Your task to perform on an android device: Search for sushi restaurants on Maps Image 0: 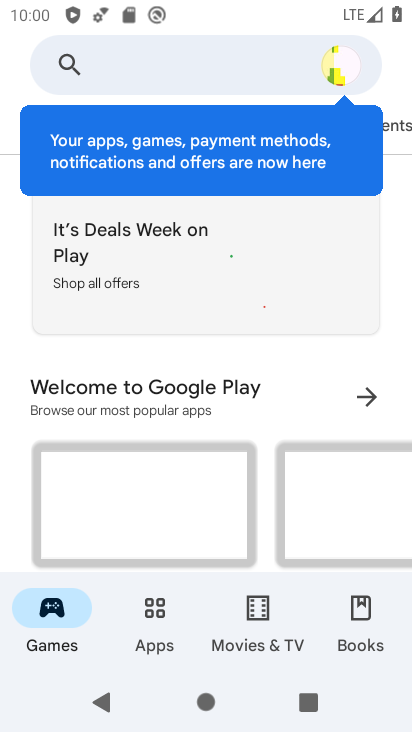
Step 0: press back button
Your task to perform on an android device: Search for sushi restaurants on Maps Image 1: 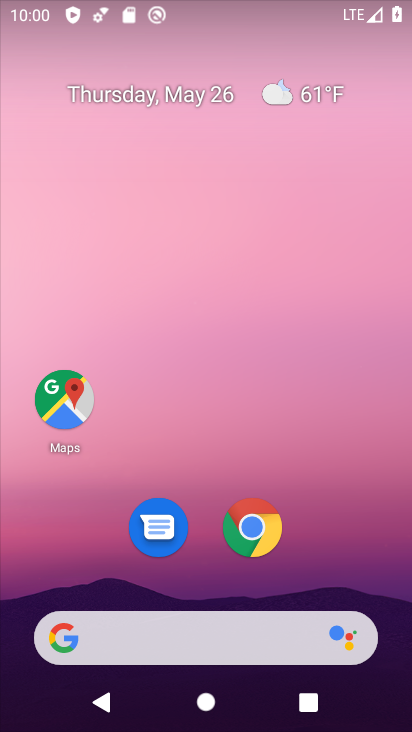
Step 1: click (54, 382)
Your task to perform on an android device: Search for sushi restaurants on Maps Image 2: 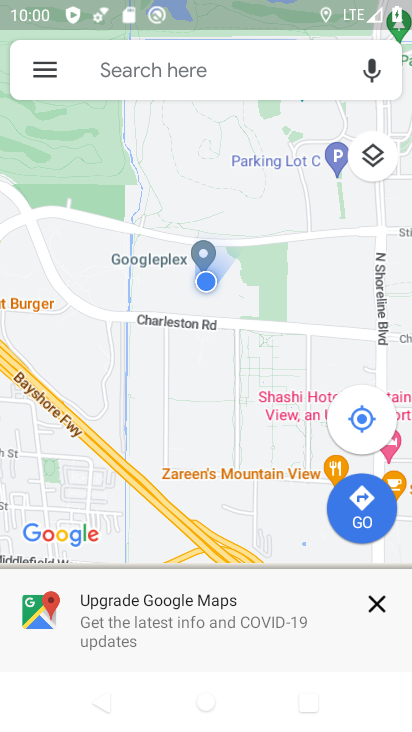
Step 2: click (150, 79)
Your task to perform on an android device: Search for sushi restaurants on Maps Image 3: 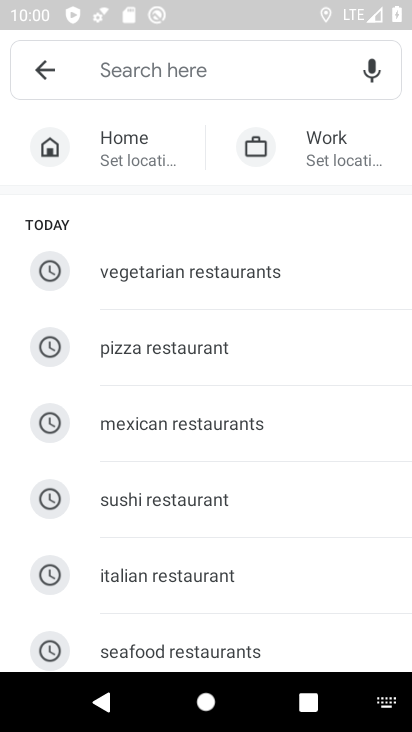
Step 3: click (140, 506)
Your task to perform on an android device: Search for sushi restaurants on Maps Image 4: 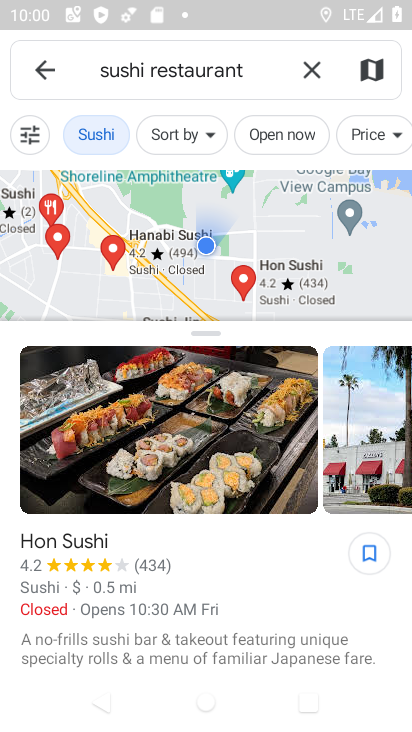
Step 4: task complete